Your task to perform on an android device: Search for the best running shoes on Nike. Image 0: 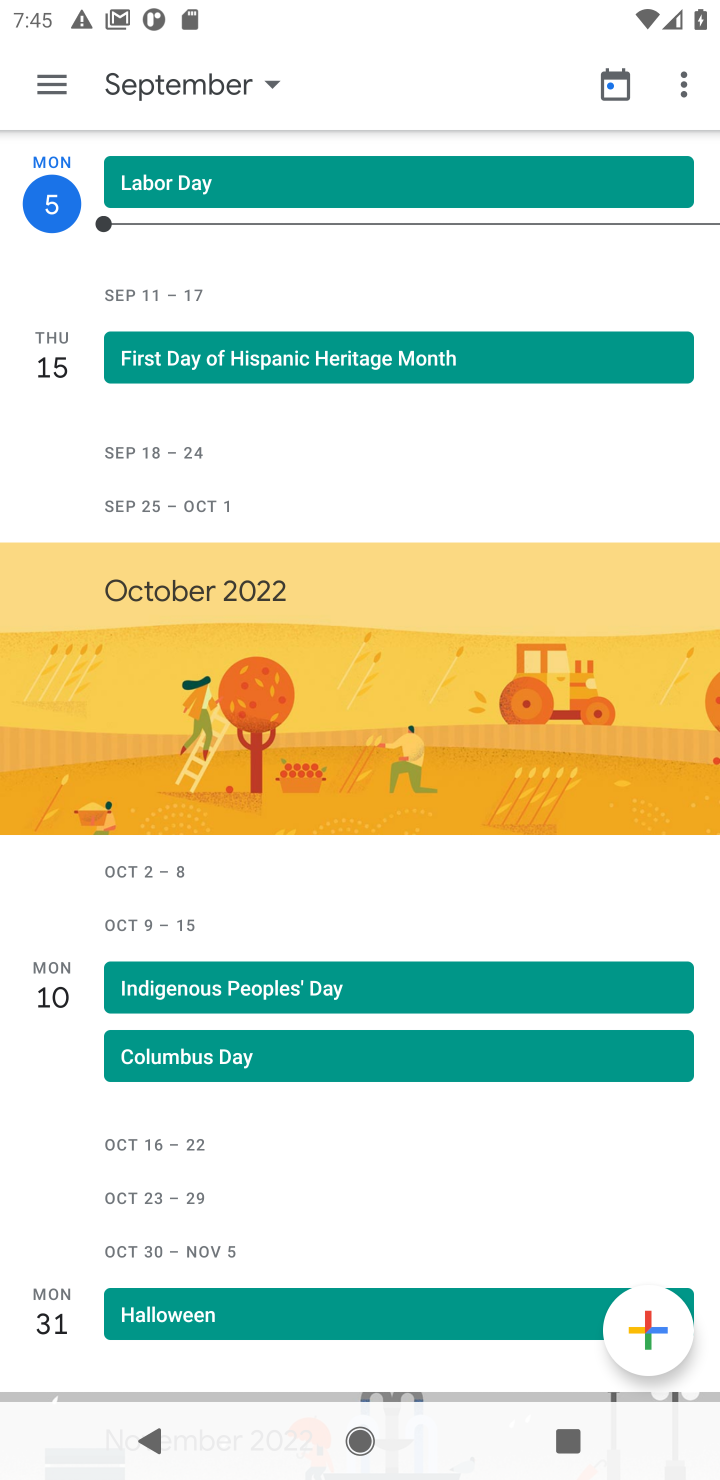
Step 0: press home button
Your task to perform on an android device: Search for the best running shoes on Nike. Image 1: 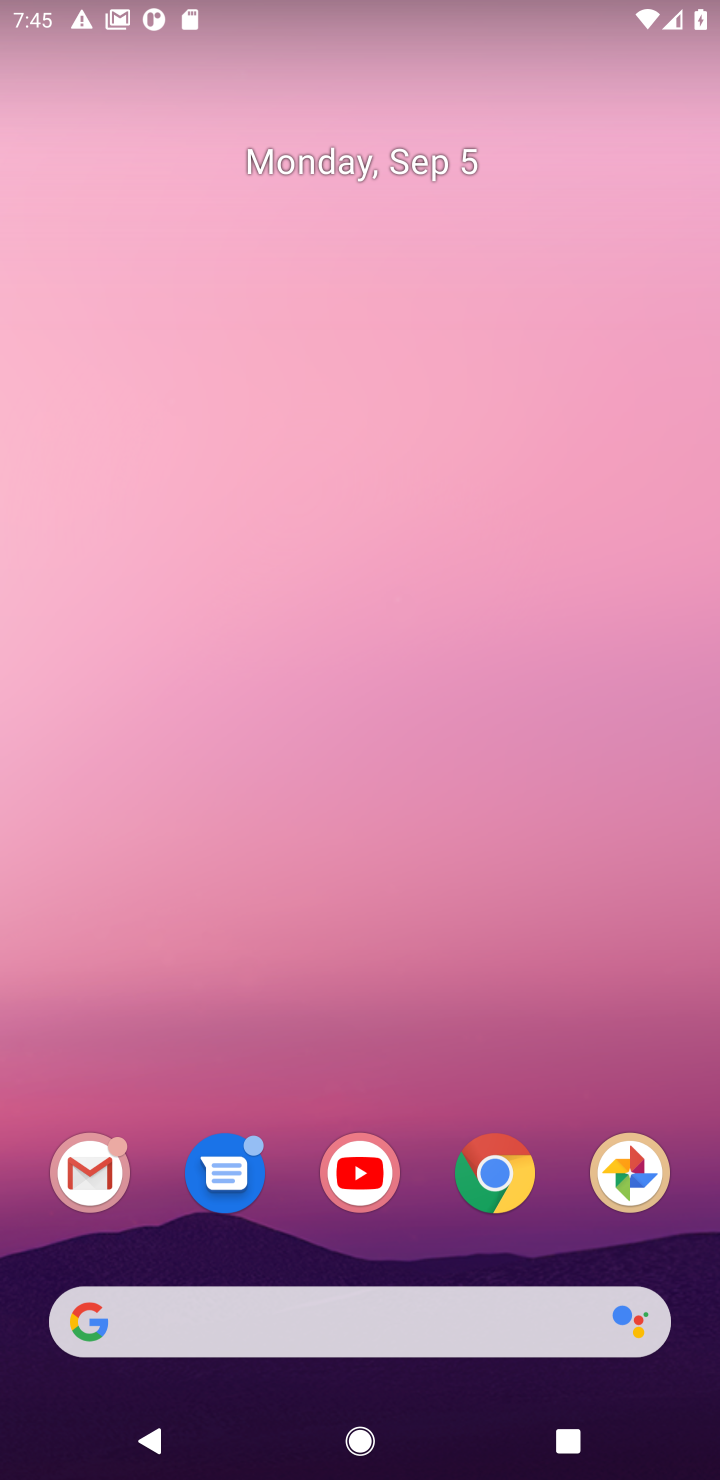
Step 1: press home button
Your task to perform on an android device: Search for the best running shoes on Nike. Image 2: 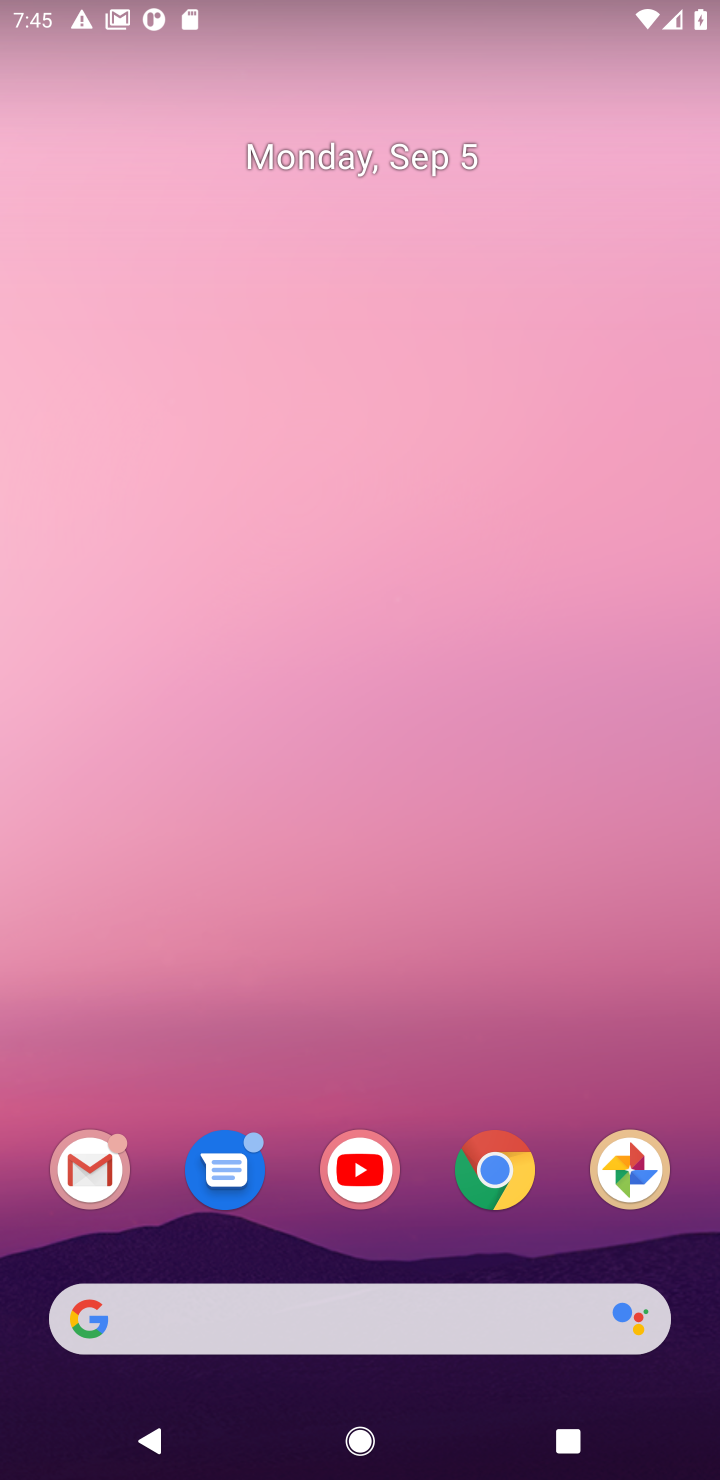
Step 2: click (506, 1131)
Your task to perform on an android device: Search for the best running shoes on Nike. Image 3: 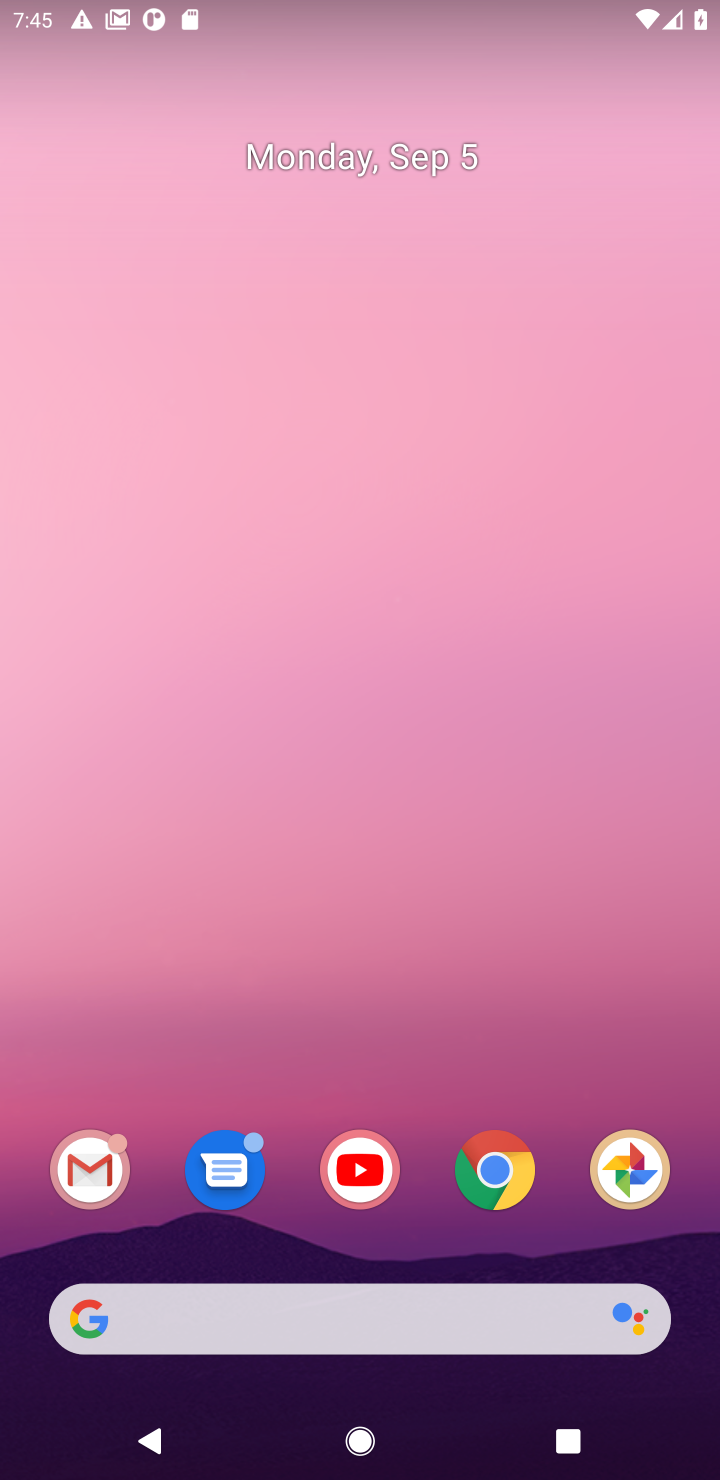
Step 3: click (556, 120)
Your task to perform on an android device: Search for the best running shoes on Nike. Image 4: 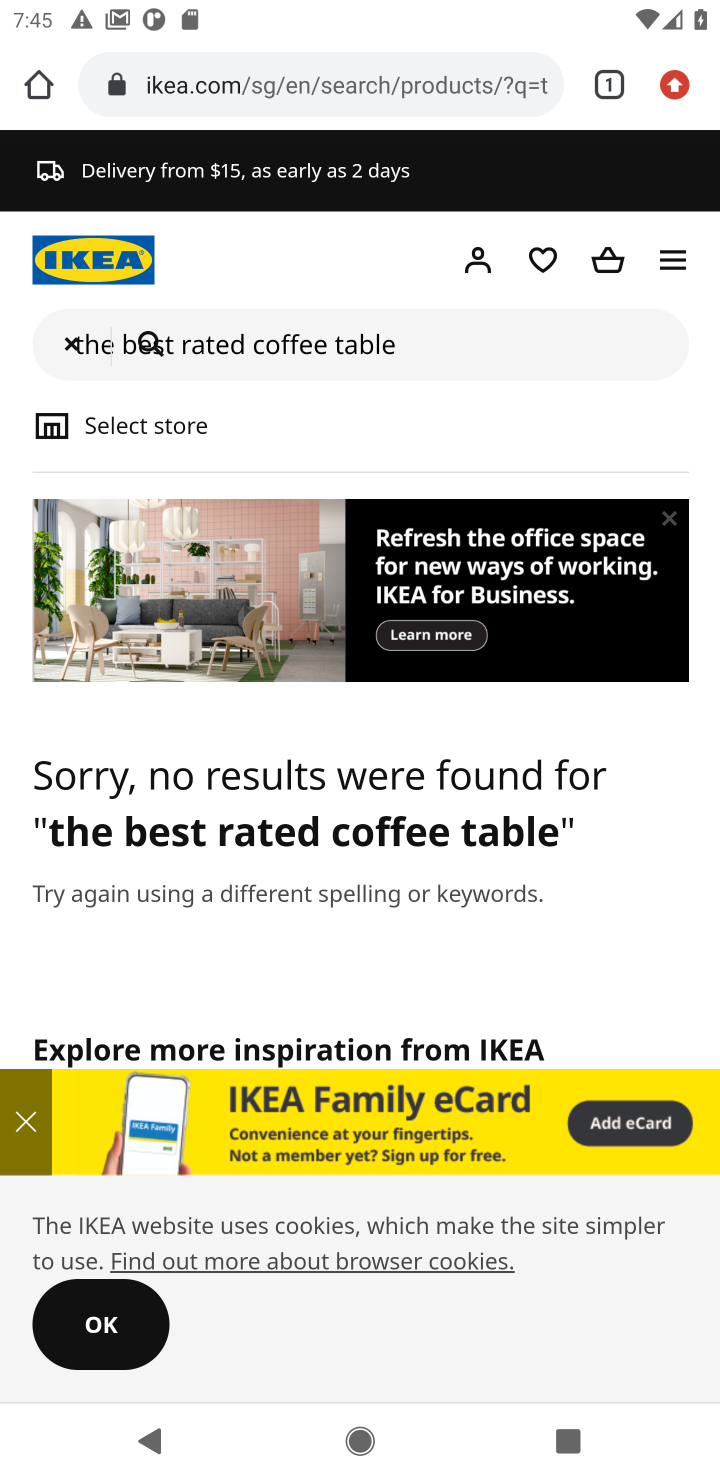
Step 4: click (344, 73)
Your task to perform on an android device: Search for the best running shoes on Nike. Image 5: 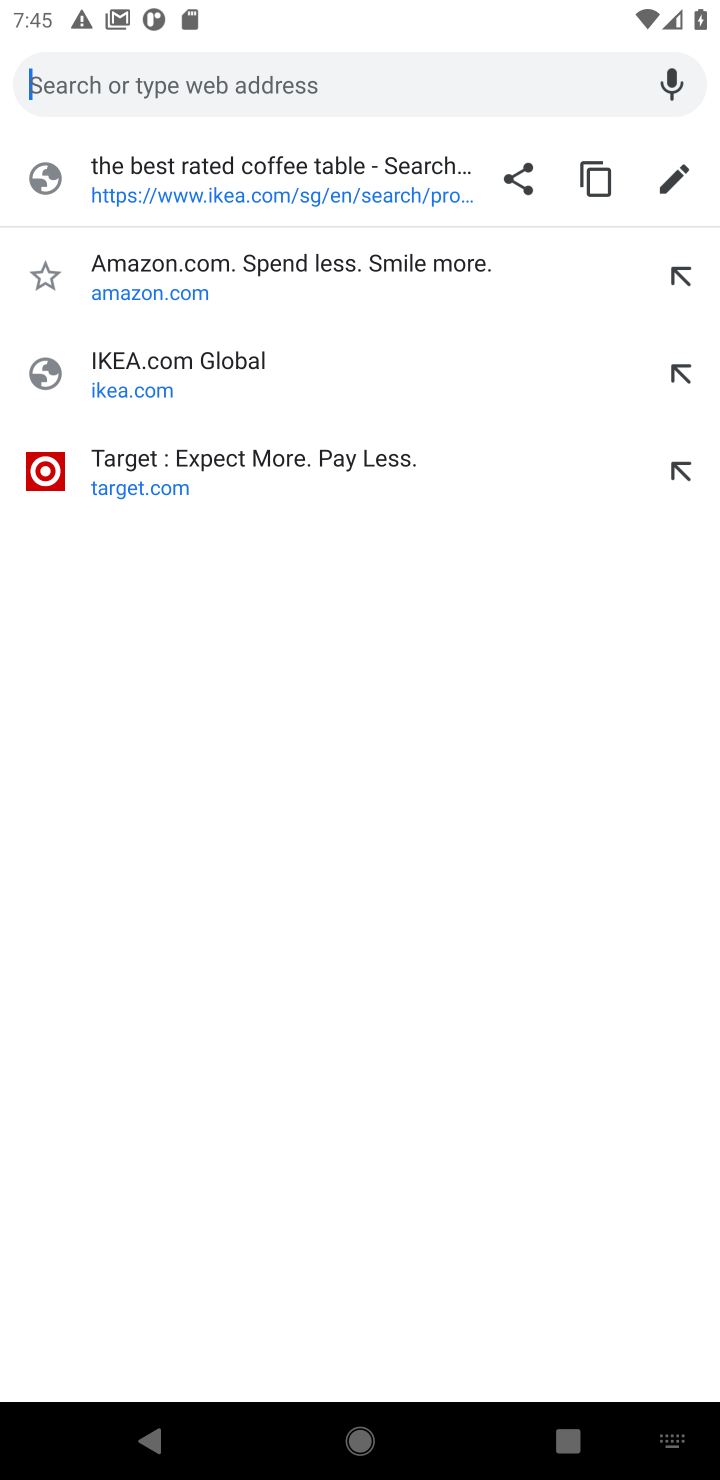
Step 5: type "Nike"
Your task to perform on an android device: Search for the best running shoes on Nike. Image 6: 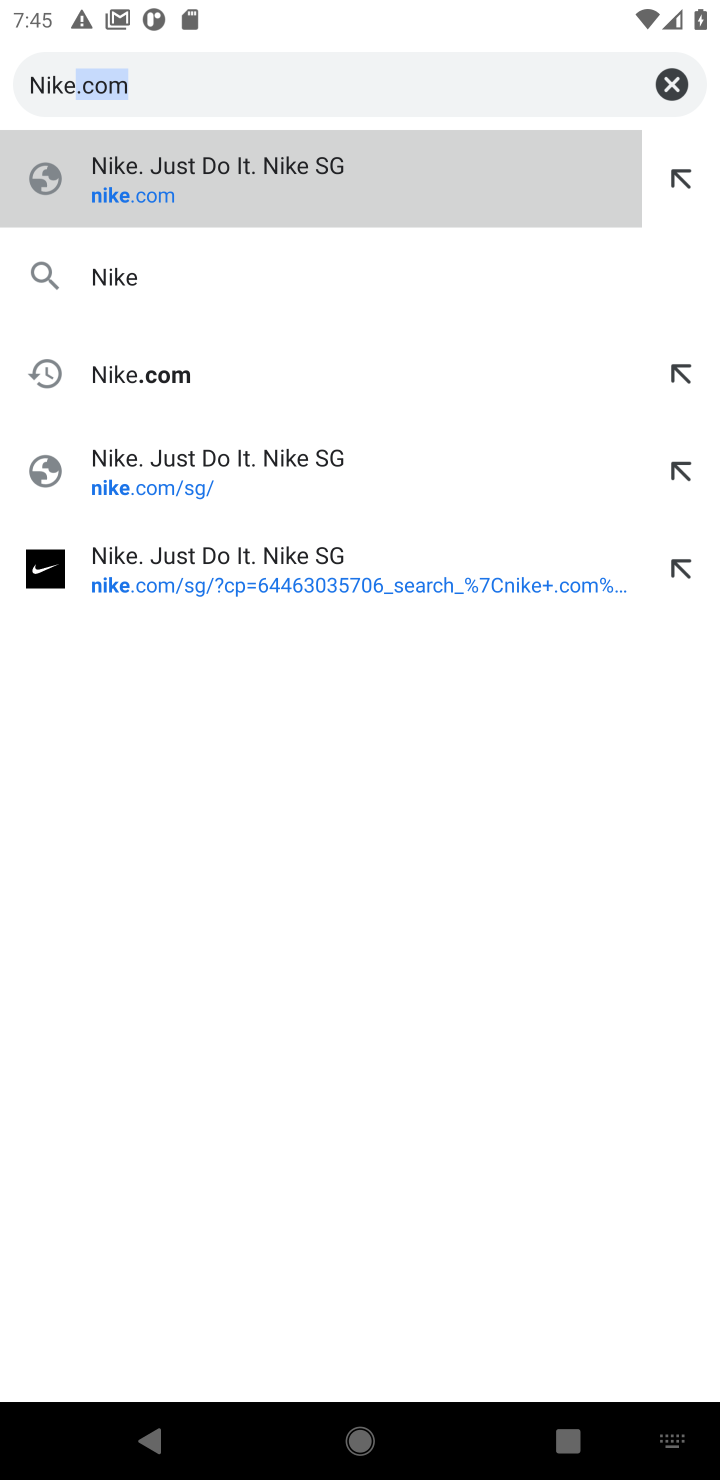
Step 6: click (133, 273)
Your task to perform on an android device: Search for the best running shoes on Nike. Image 7: 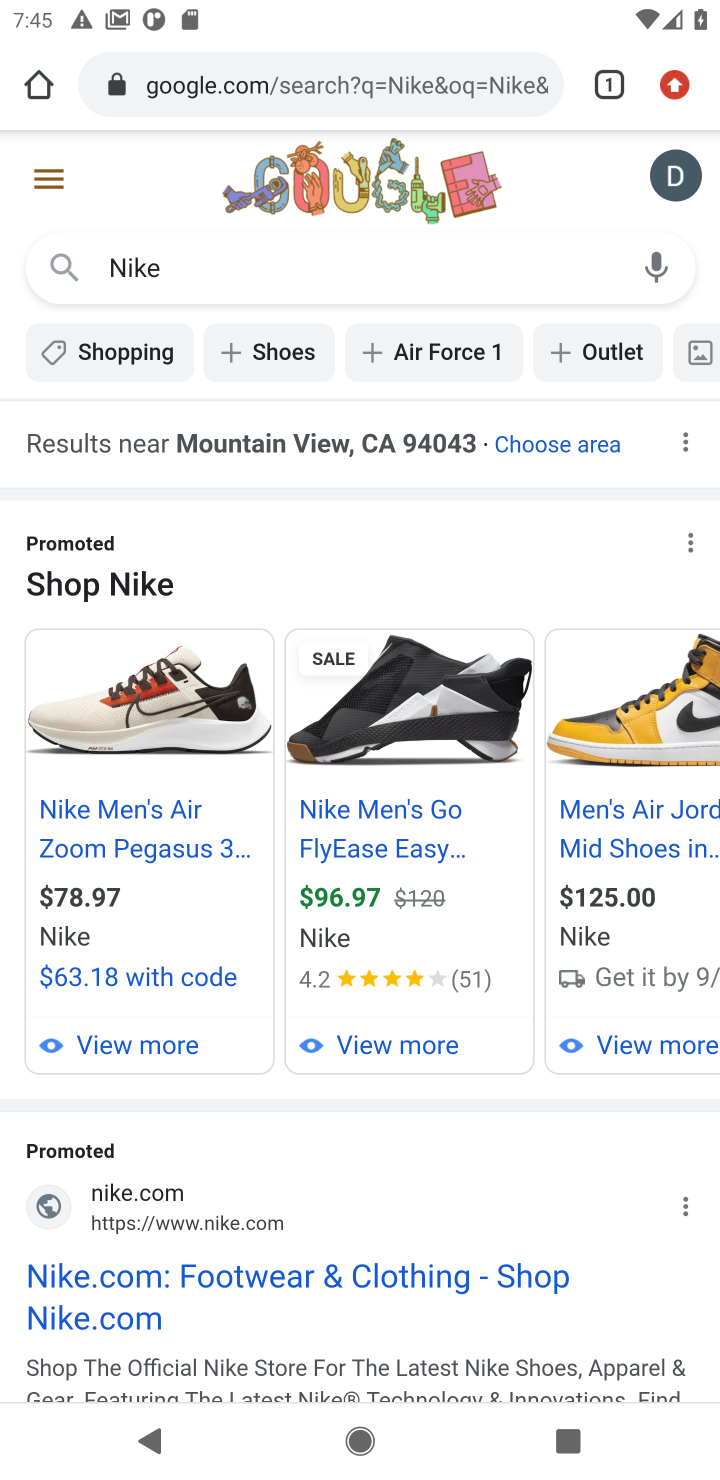
Step 7: click (329, 1287)
Your task to perform on an android device: Search for the best running shoes on Nike. Image 8: 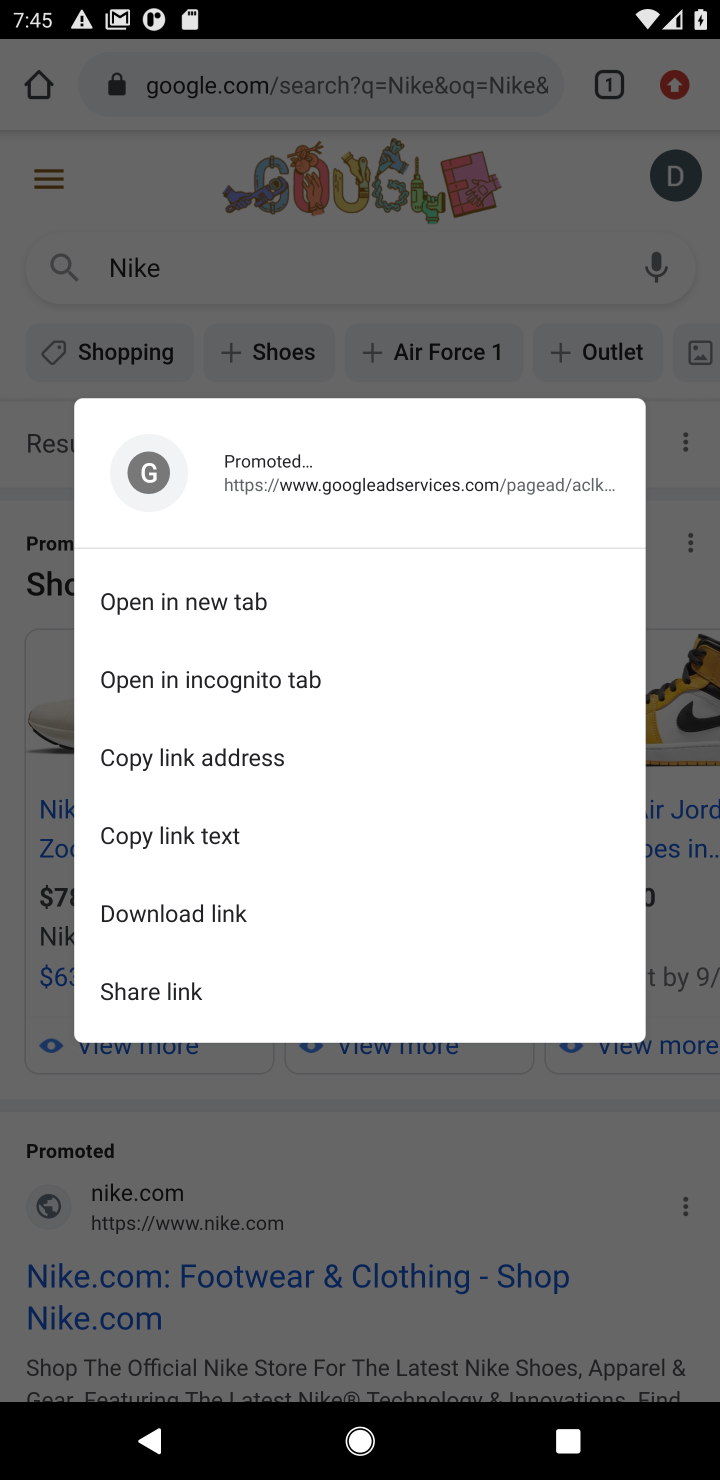
Step 8: click (164, 1244)
Your task to perform on an android device: Search for the best running shoes on Nike. Image 9: 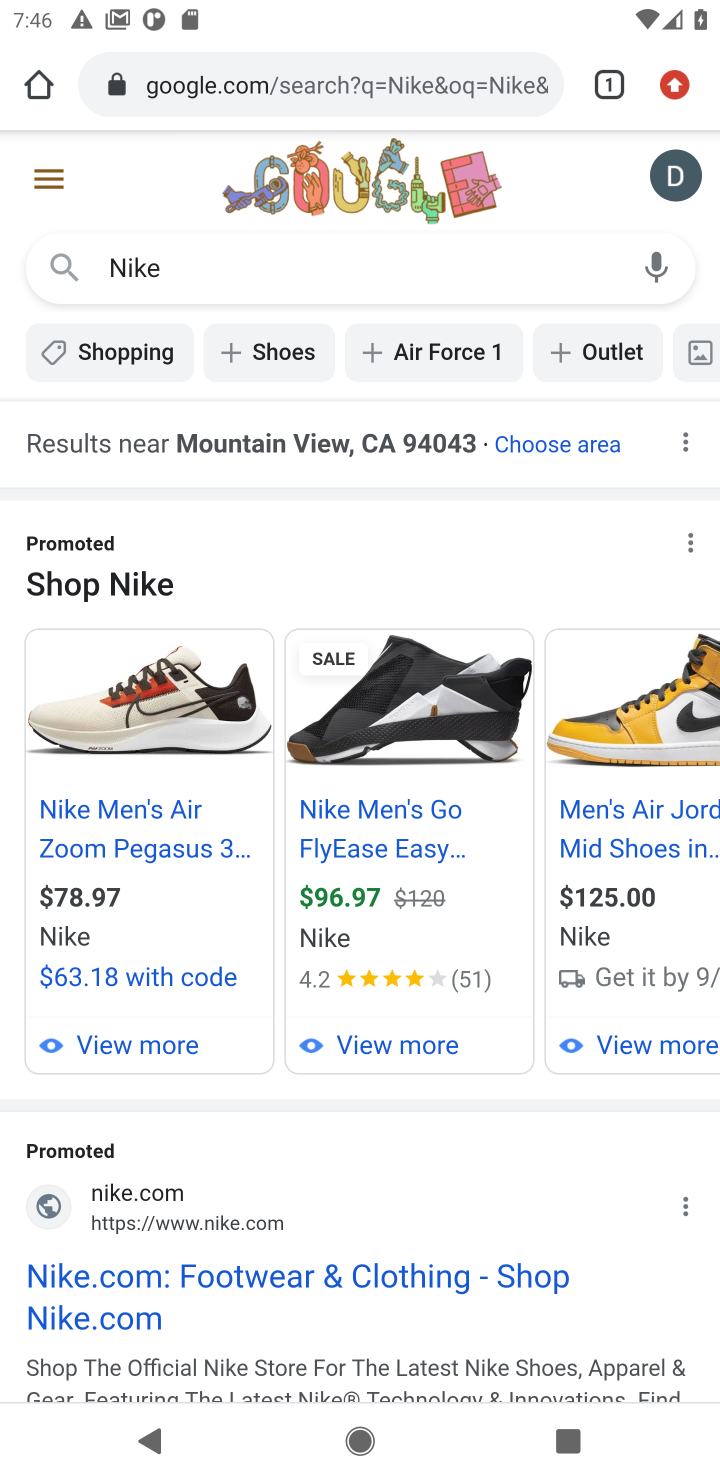
Step 9: click (119, 1271)
Your task to perform on an android device: Search for the best running shoes on Nike. Image 10: 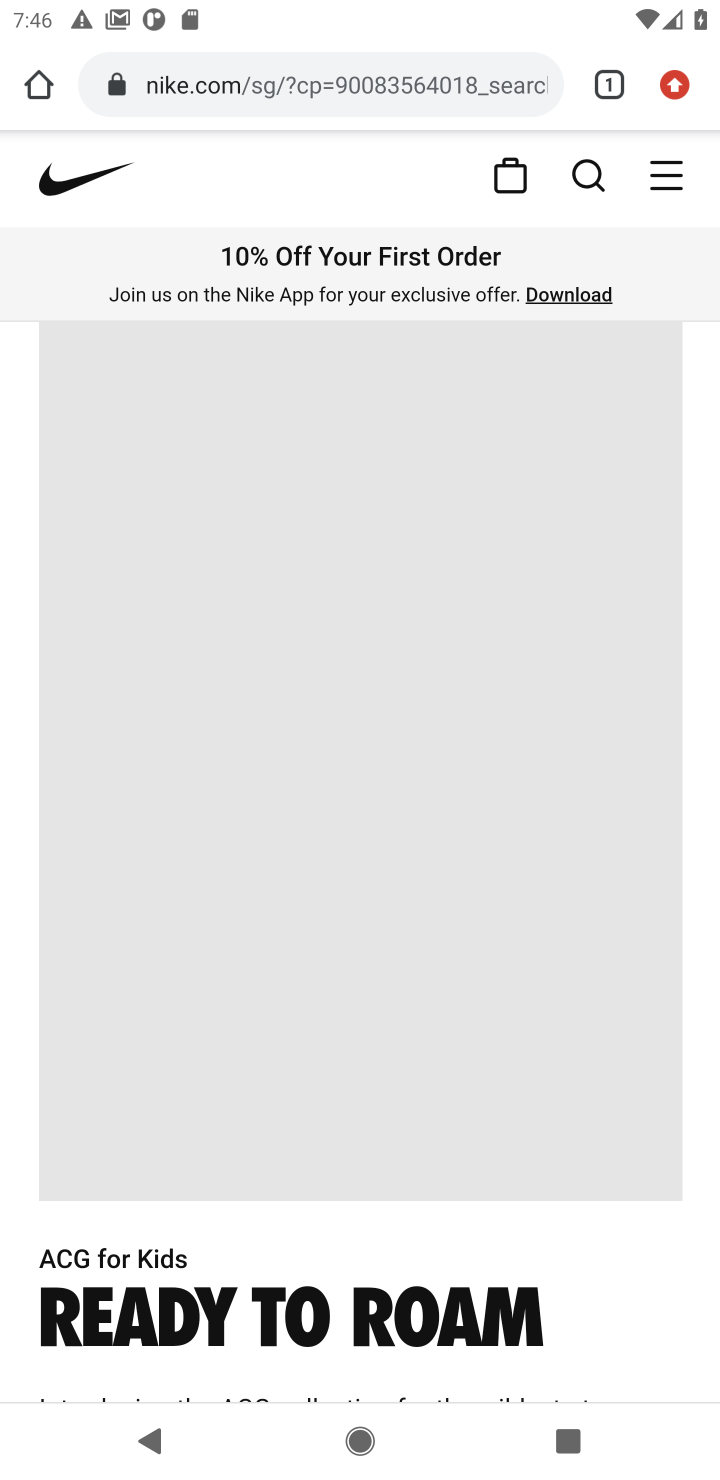
Step 10: click (585, 177)
Your task to perform on an android device: Search for the best running shoes on Nike. Image 11: 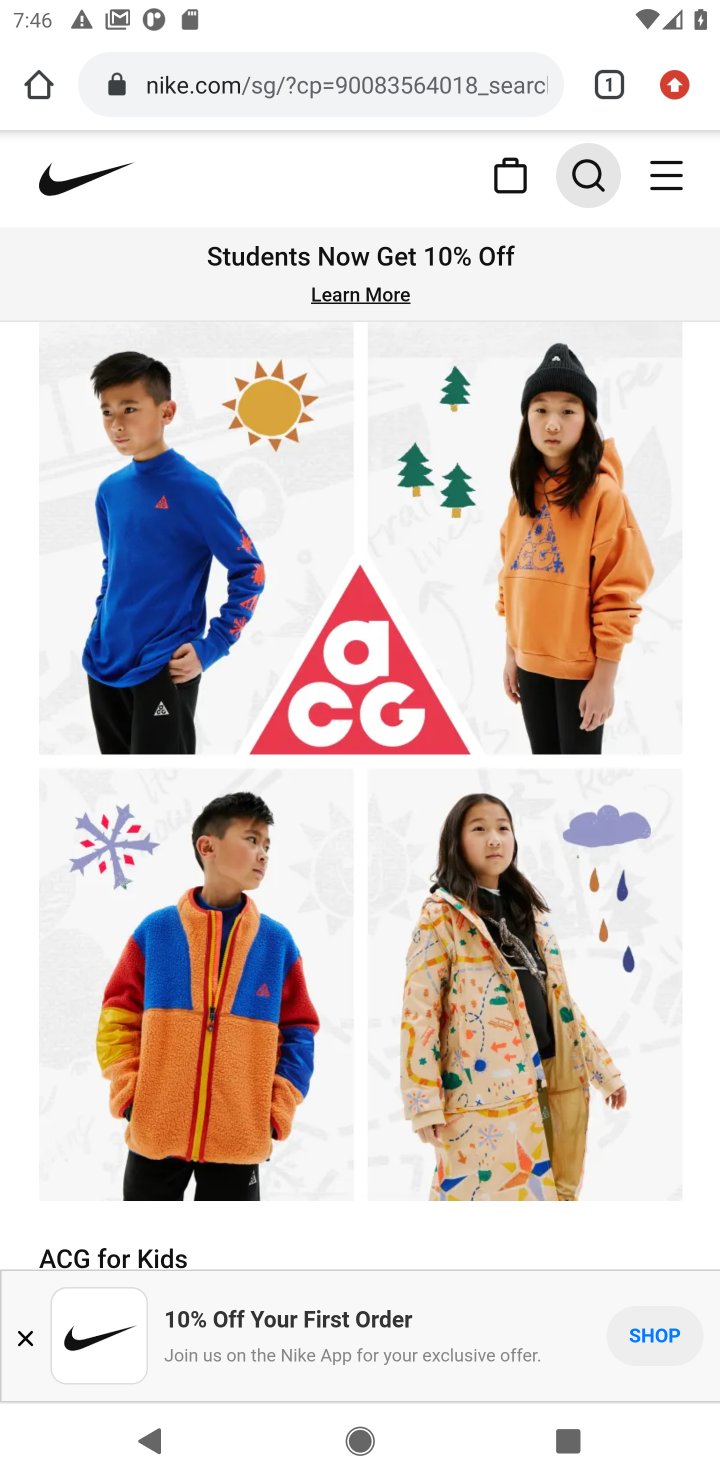
Step 11: click (577, 159)
Your task to perform on an android device: Search for the best running shoes on Nike. Image 12: 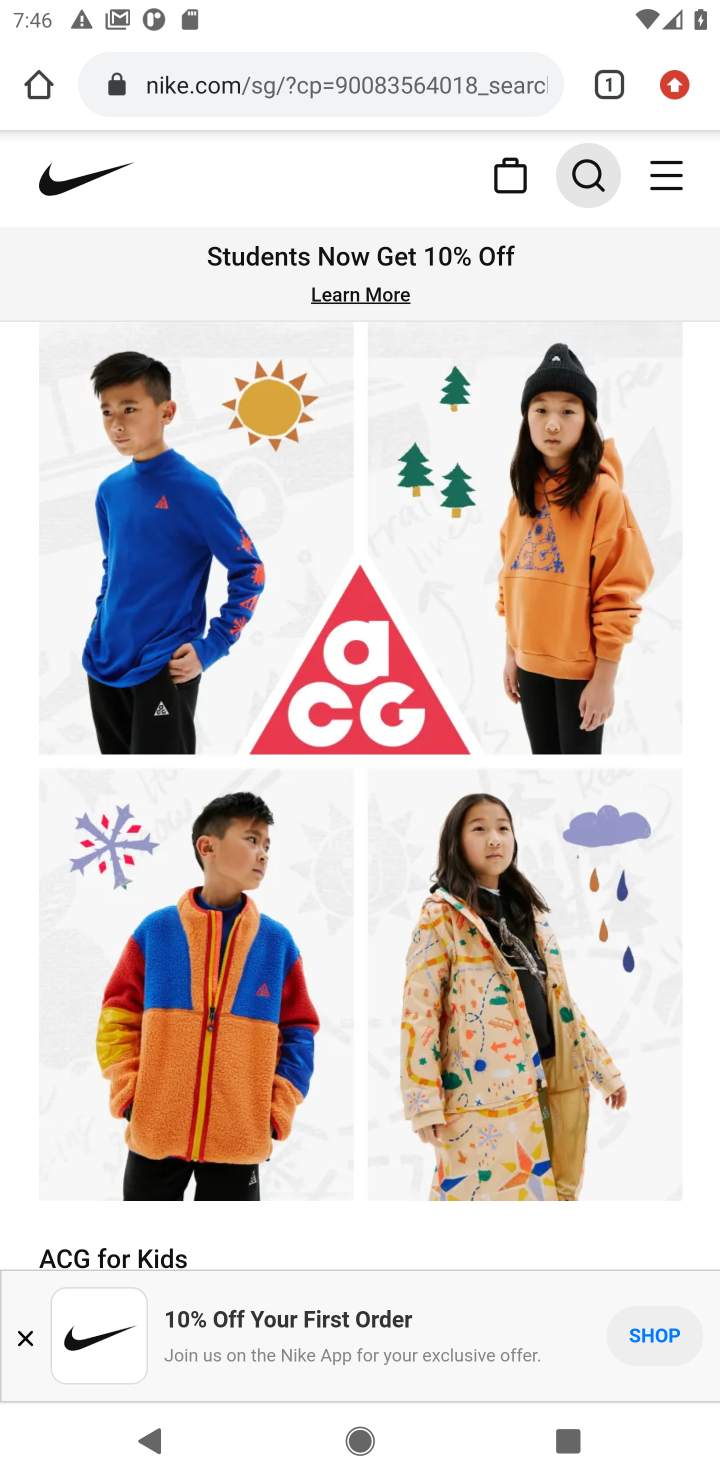
Step 12: click (587, 163)
Your task to perform on an android device: Search for the best running shoes on Nike. Image 13: 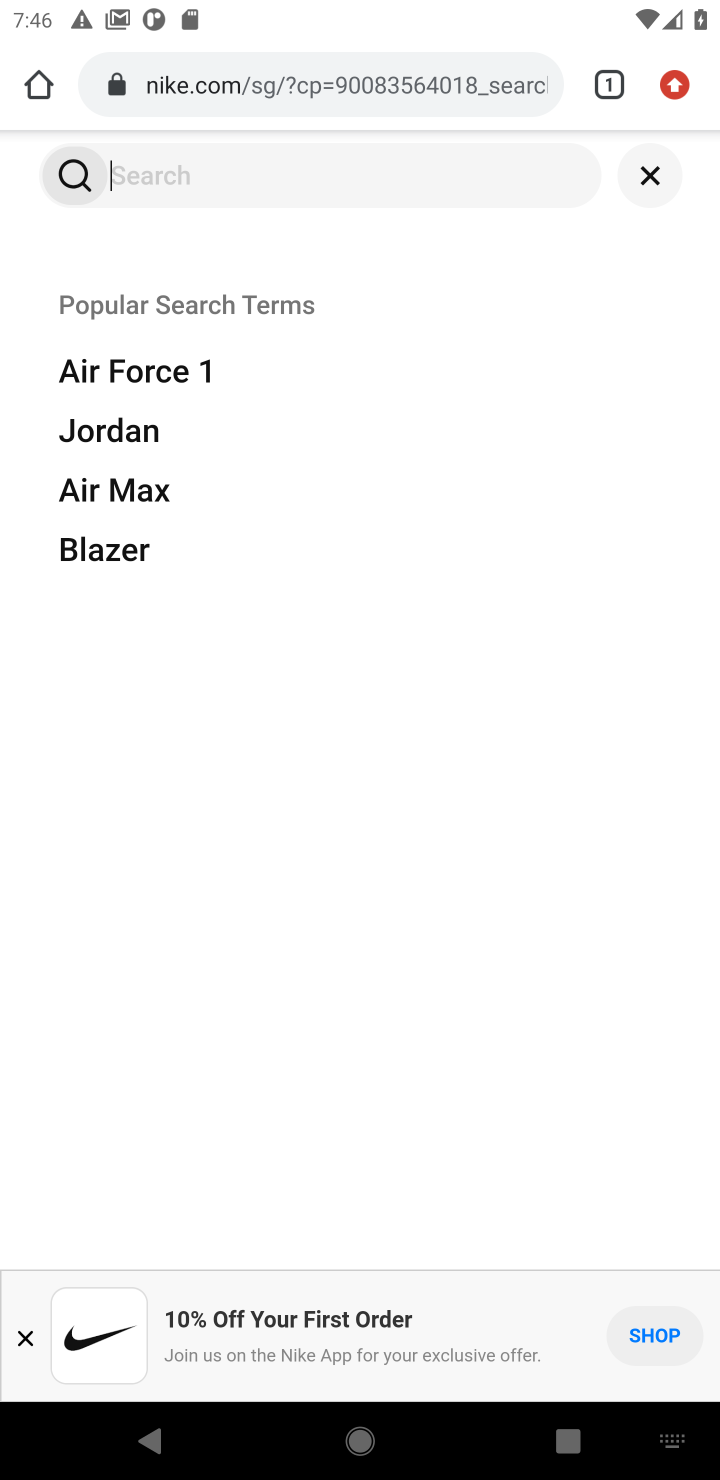
Step 13: click (272, 187)
Your task to perform on an android device: Search for the best running shoes on Nike. Image 14: 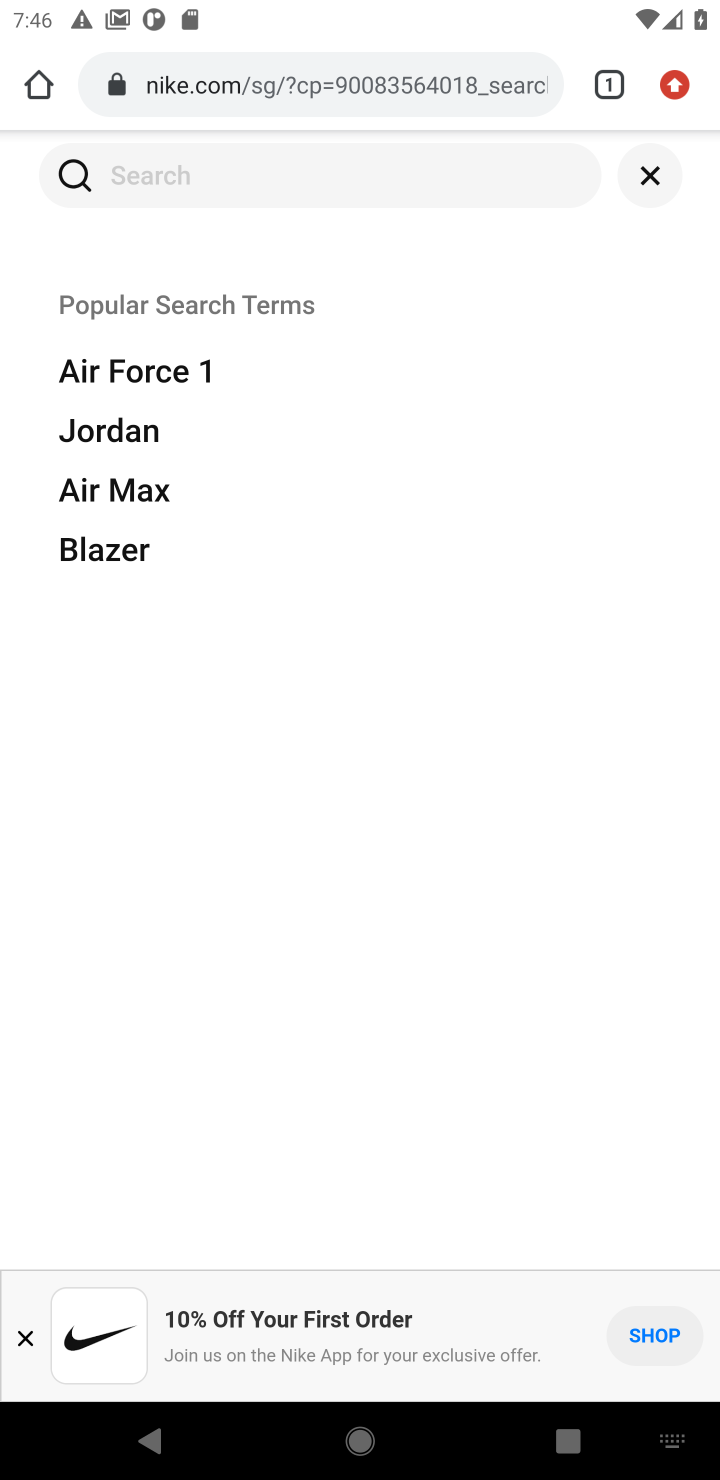
Step 14: type "the best running shoes"
Your task to perform on an android device: Search for the best running shoes on Nike. Image 15: 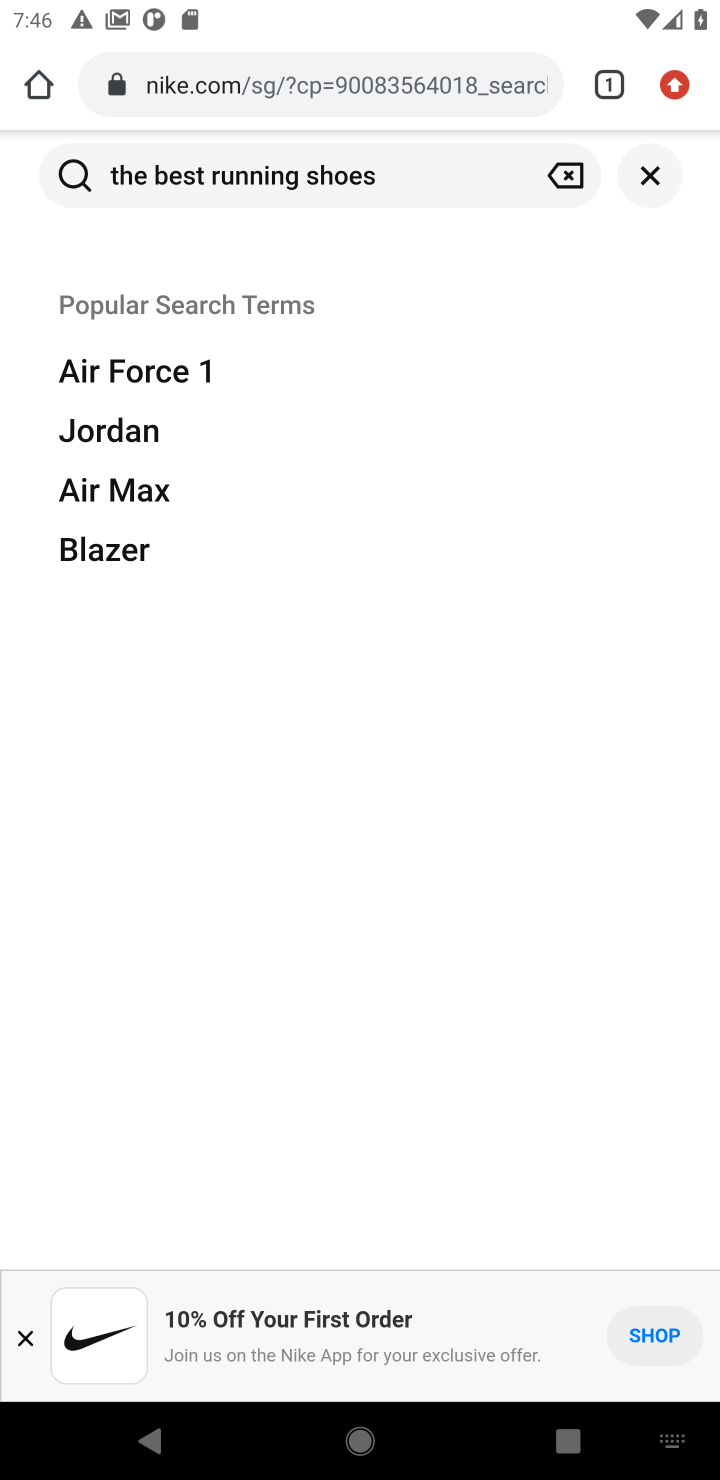
Step 15: click (79, 160)
Your task to perform on an android device: Search for the best running shoes on Nike. Image 16: 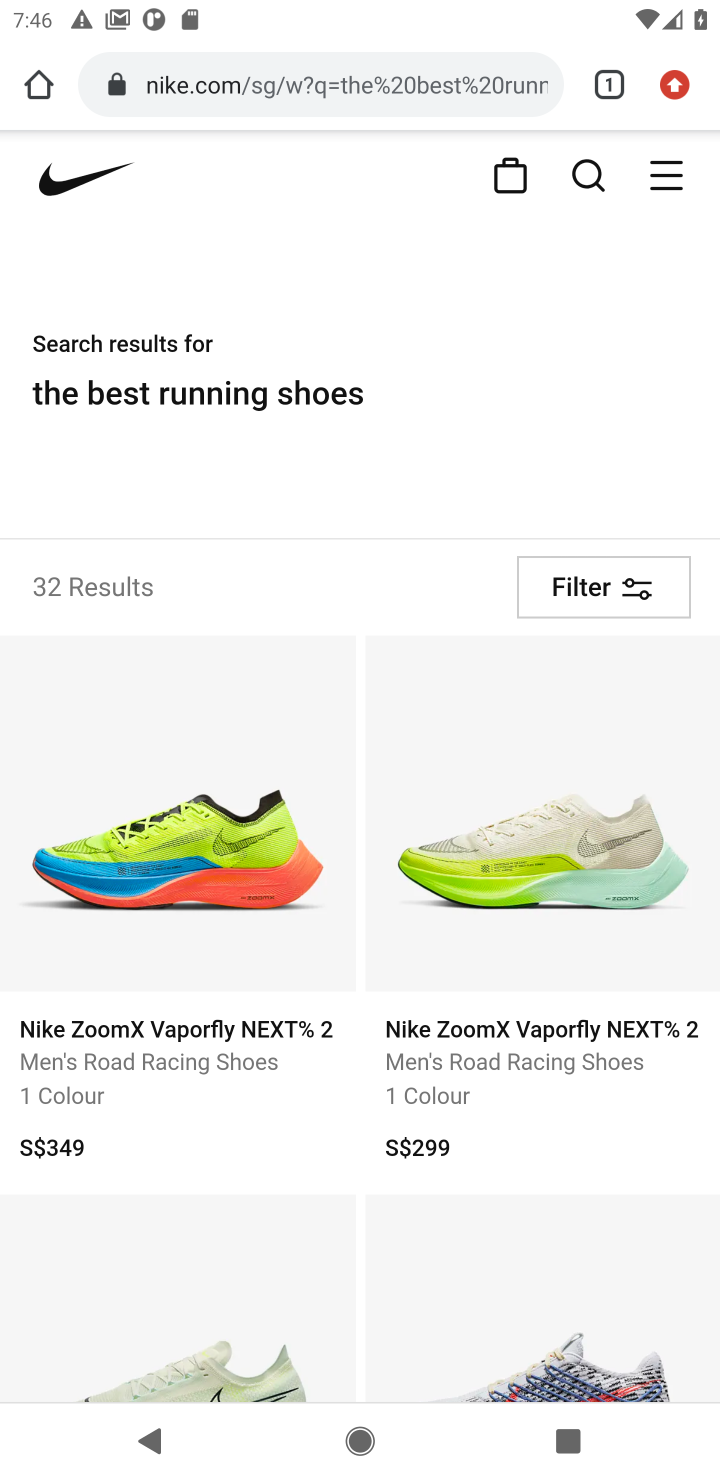
Step 16: task complete